Your task to perform on an android device: Open the web browser Image 0: 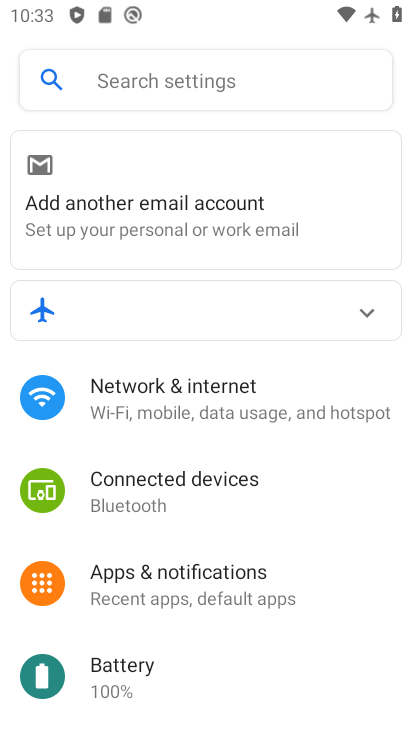
Step 0: press back button
Your task to perform on an android device: Open the web browser Image 1: 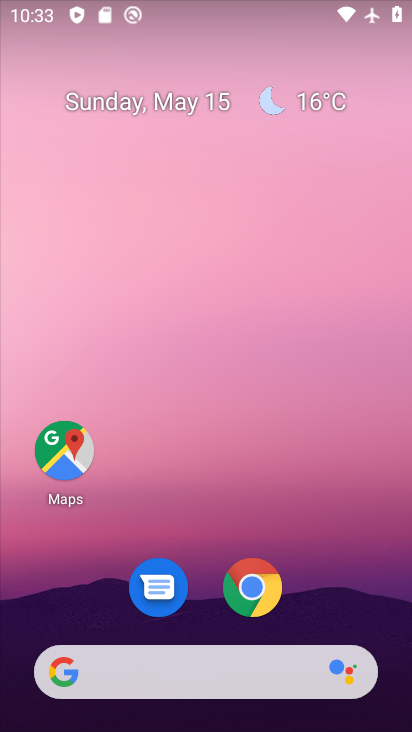
Step 1: drag from (311, 563) to (270, 23)
Your task to perform on an android device: Open the web browser Image 2: 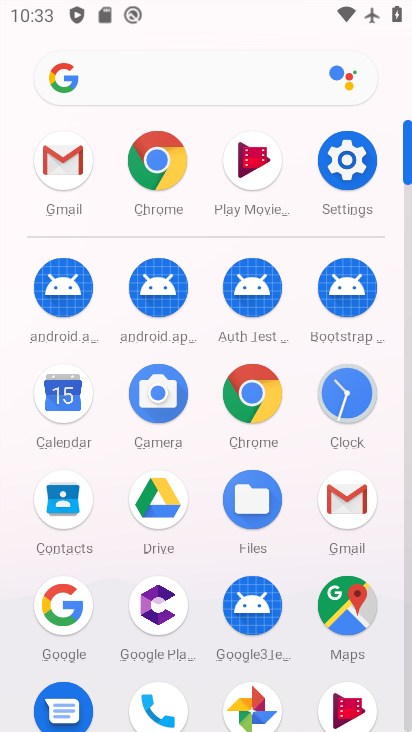
Step 2: click (157, 150)
Your task to perform on an android device: Open the web browser Image 3: 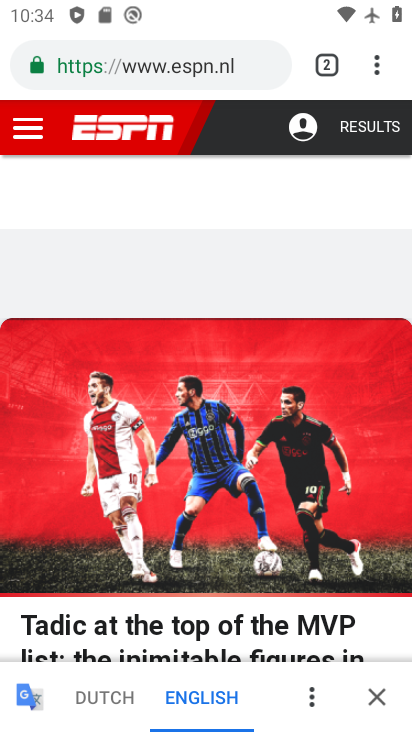
Step 3: task complete